Your task to perform on an android device: turn on the 12-hour format for clock Image 0: 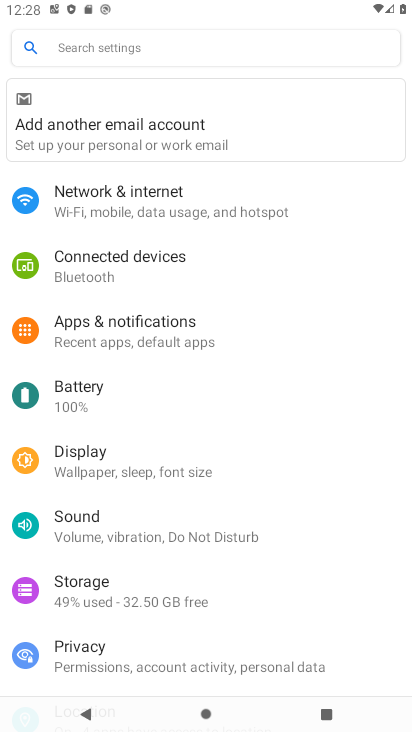
Step 0: press home button
Your task to perform on an android device: turn on the 12-hour format for clock Image 1: 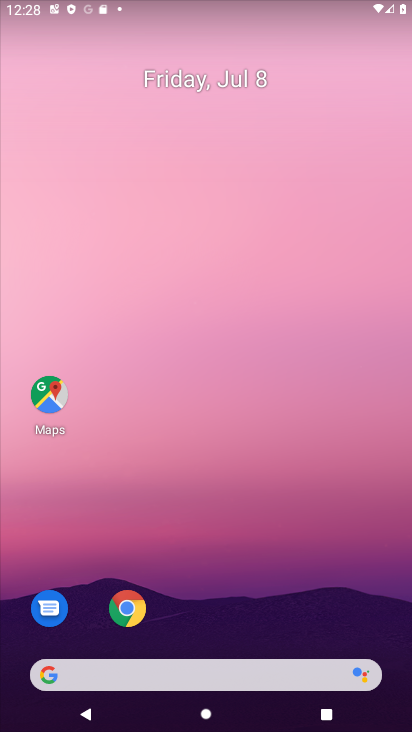
Step 1: drag from (275, 595) to (71, 0)
Your task to perform on an android device: turn on the 12-hour format for clock Image 2: 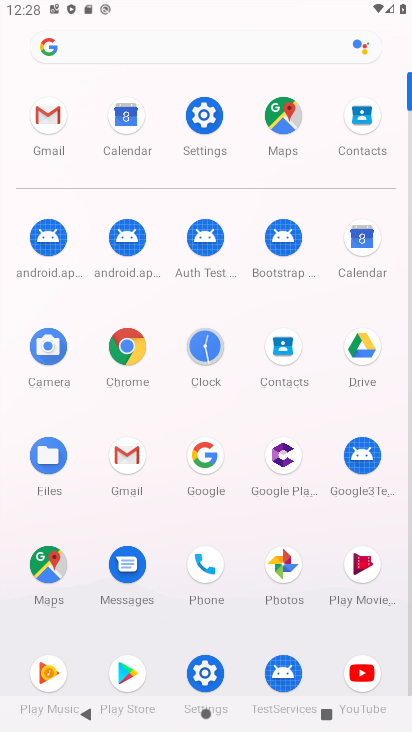
Step 2: click (213, 358)
Your task to perform on an android device: turn on the 12-hour format for clock Image 3: 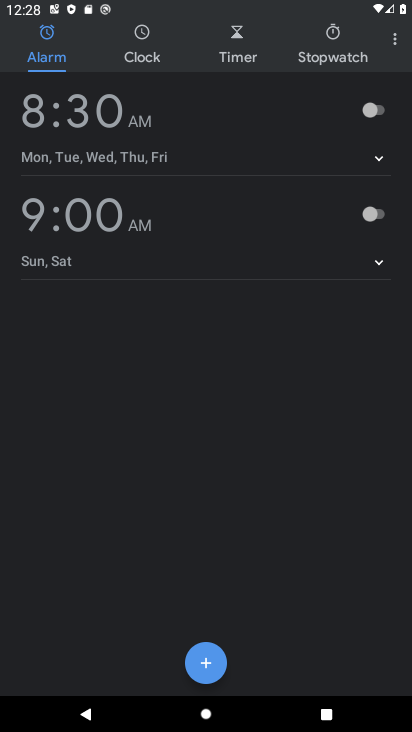
Step 3: click (399, 45)
Your task to perform on an android device: turn on the 12-hour format for clock Image 4: 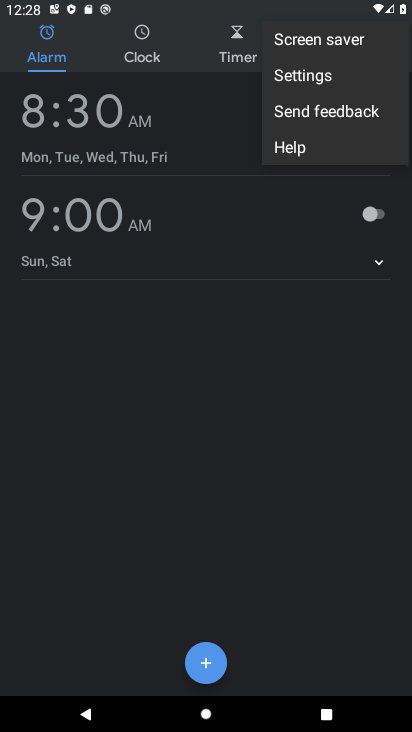
Step 4: click (341, 65)
Your task to perform on an android device: turn on the 12-hour format for clock Image 5: 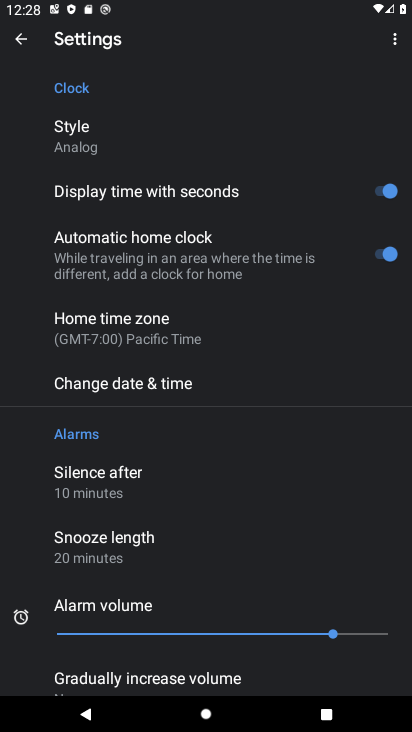
Step 5: drag from (186, 412) to (167, 302)
Your task to perform on an android device: turn on the 12-hour format for clock Image 6: 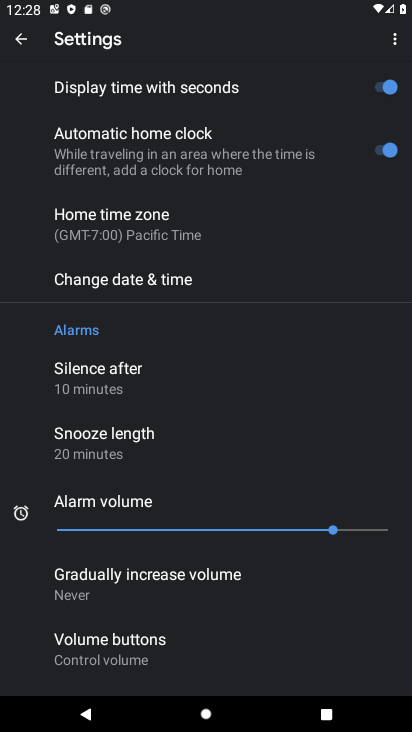
Step 6: drag from (138, 258) to (153, 478)
Your task to perform on an android device: turn on the 12-hour format for clock Image 7: 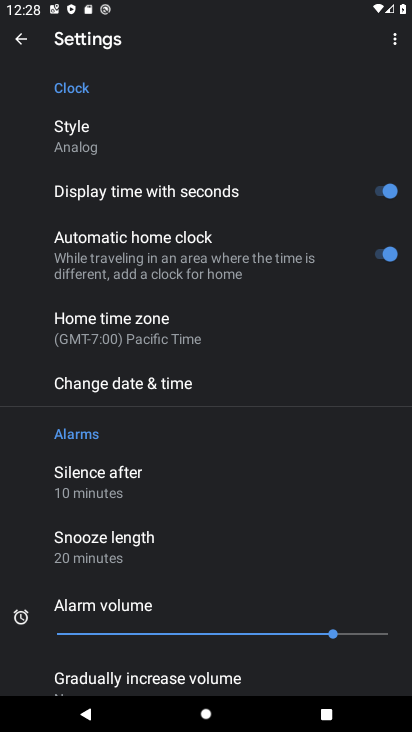
Step 7: click (170, 382)
Your task to perform on an android device: turn on the 12-hour format for clock Image 8: 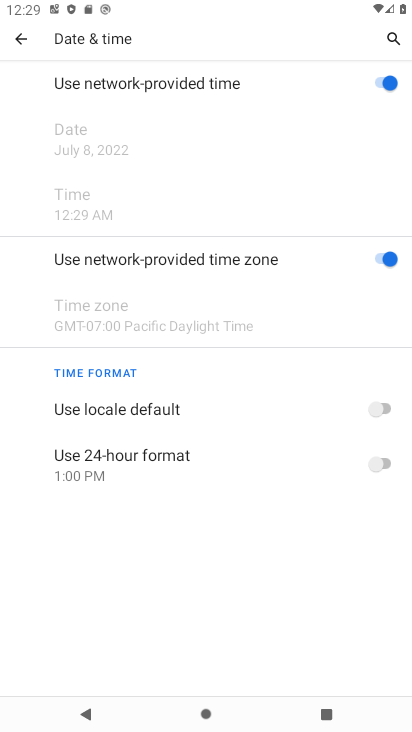
Step 8: task complete